Your task to perform on an android device: Open sound settings Image 0: 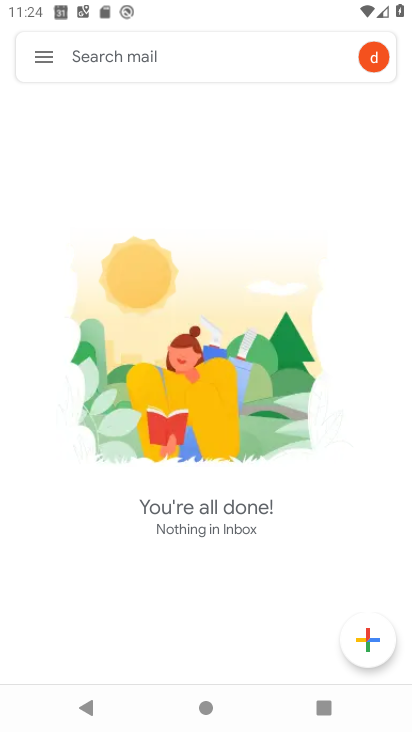
Step 0: press home button
Your task to perform on an android device: Open sound settings Image 1: 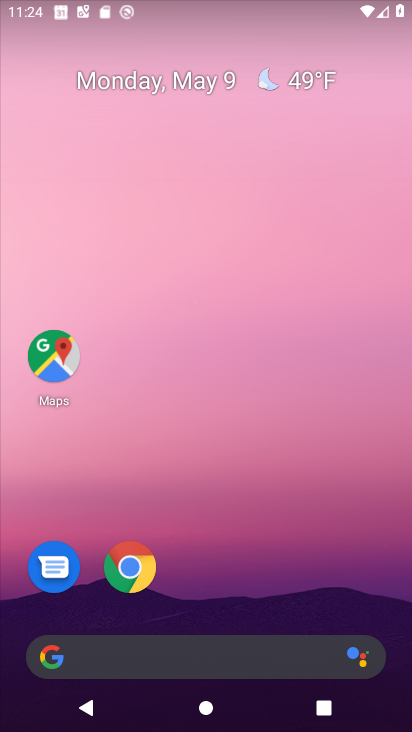
Step 1: drag from (184, 589) to (192, 191)
Your task to perform on an android device: Open sound settings Image 2: 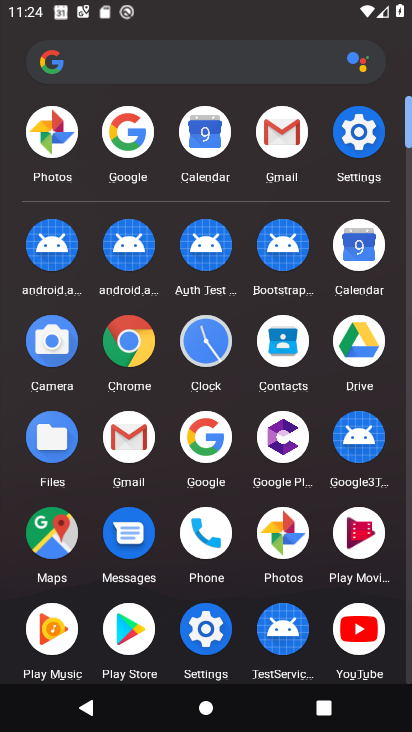
Step 2: click (355, 128)
Your task to perform on an android device: Open sound settings Image 3: 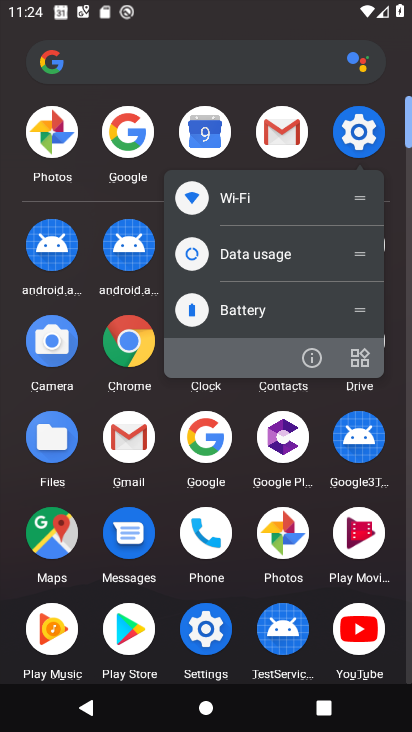
Step 3: click (355, 128)
Your task to perform on an android device: Open sound settings Image 4: 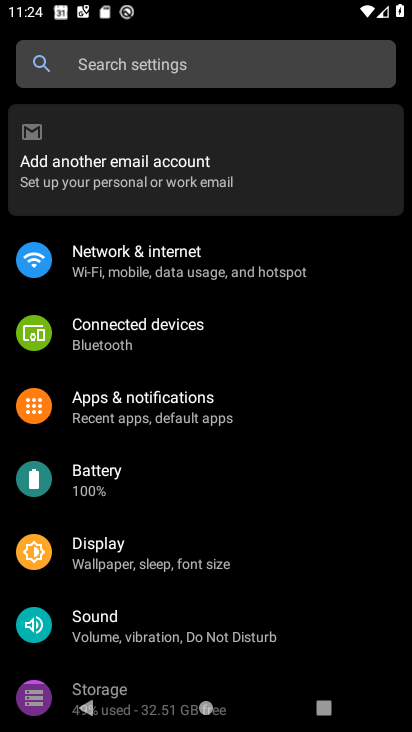
Step 4: click (115, 641)
Your task to perform on an android device: Open sound settings Image 5: 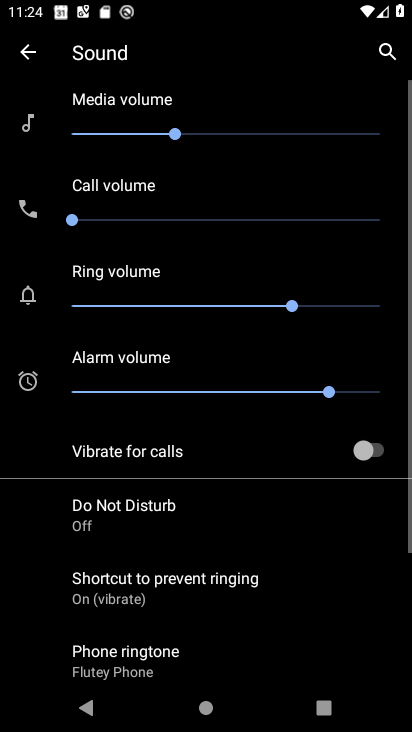
Step 5: drag from (164, 658) to (225, 202)
Your task to perform on an android device: Open sound settings Image 6: 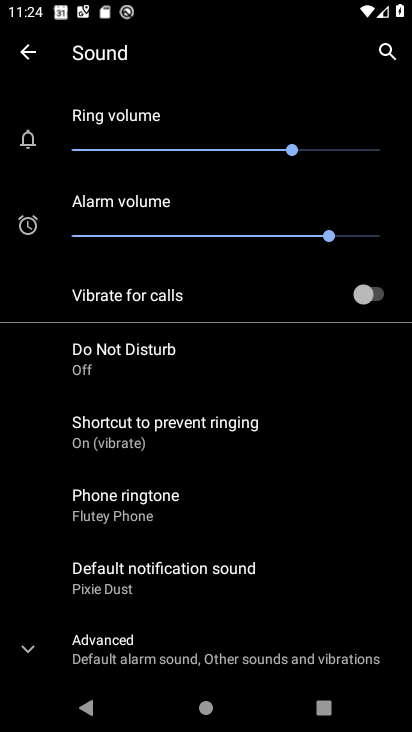
Step 6: click (189, 663)
Your task to perform on an android device: Open sound settings Image 7: 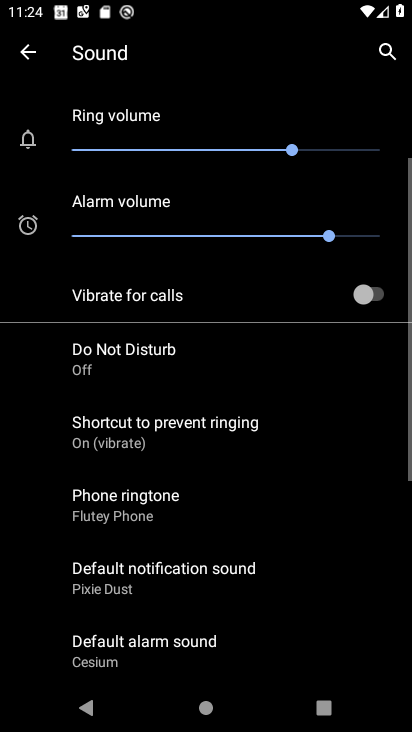
Step 7: task complete